Your task to perform on an android device: turn on wifi Image 0: 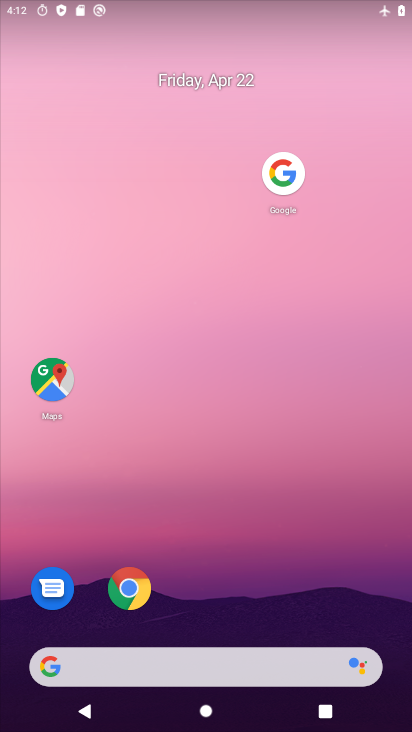
Step 0: drag from (210, 631) to (271, 16)
Your task to perform on an android device: turn on wifi Image 1: 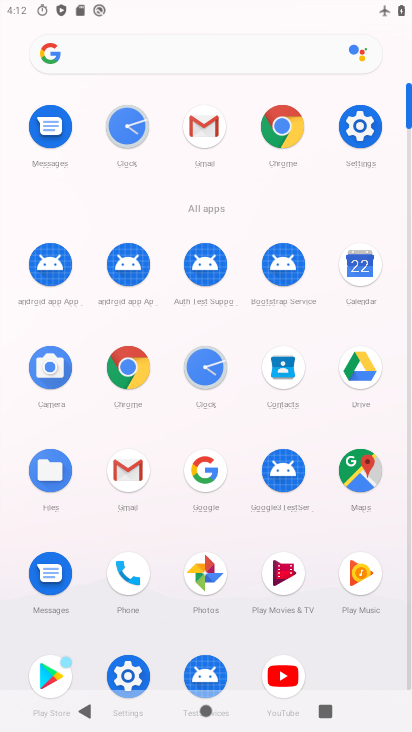
Step 1: click (378, 132)
Your task to perform on an android device: turn on wifi Image 2: 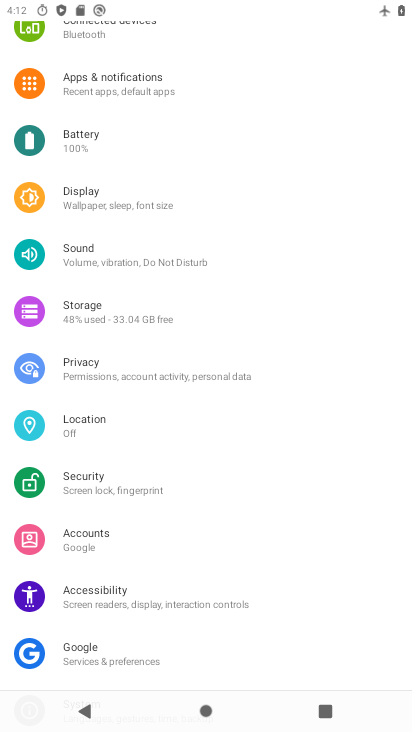
Step 2: drag from (210, 108) to (157, 498)
Your task to perform on an android device: turn on wifi Image 3: 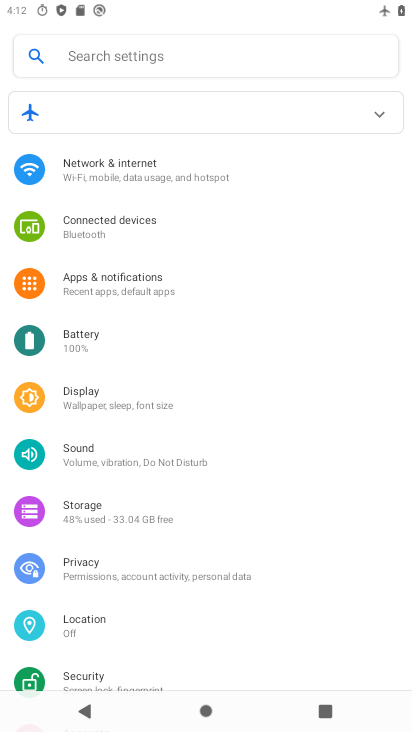
Step 3: click (98, 162)
Your task to perform on an android device: turn on wifi Image 4: 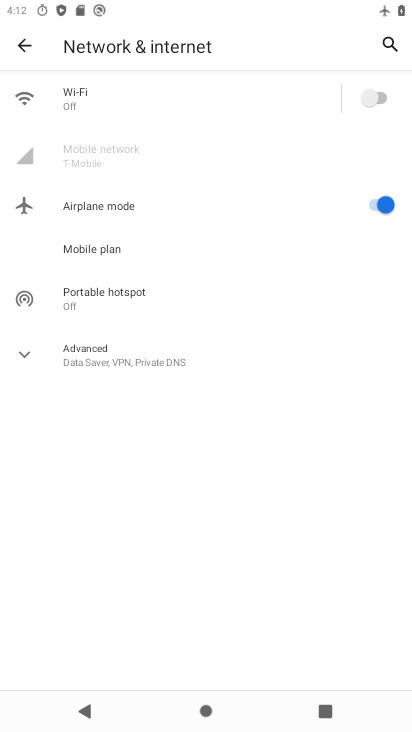
Step 4: click (361, 102)
Your task to perform on an android device: turn on wifi Image 5: 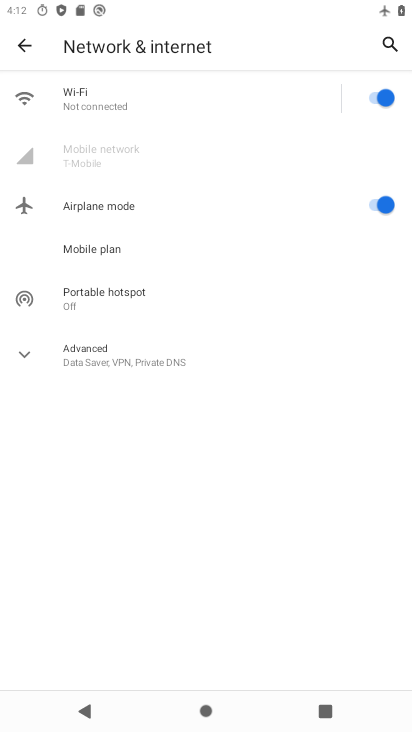
Step 5: task complete